Your task to perform on an android device: Open network settings Image 0: 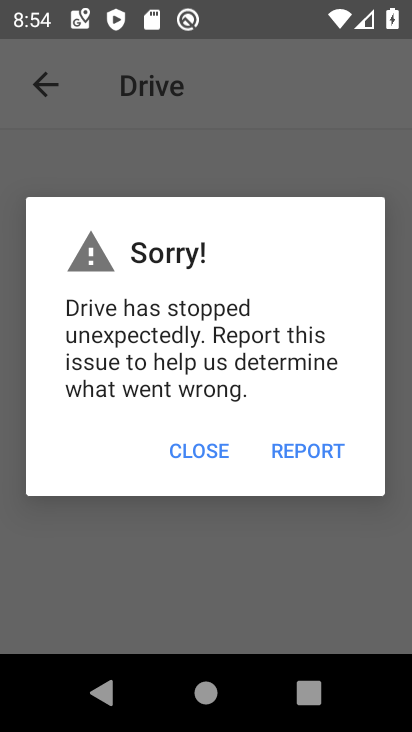
Step 0: press home button
Your task to perform on an android device: Open network settings Image 1: 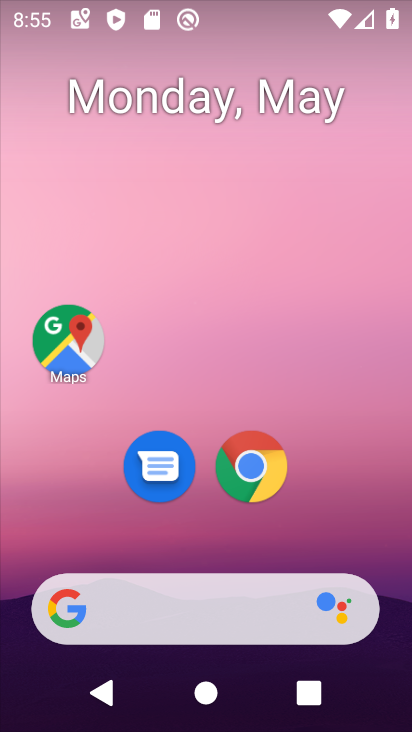
Step 1: drag from (218, 648) to (262, 219)
Your task to perform on an android device: Open network settings Image 2: 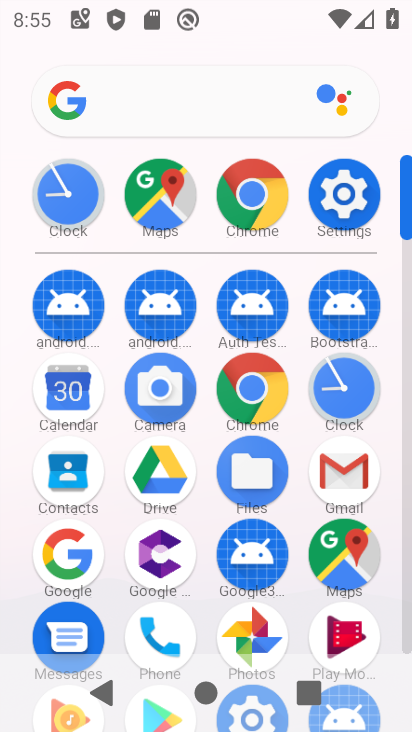
Step 2: click (330, 221)
Your task to perform on an android device: Open network settings Image 3: 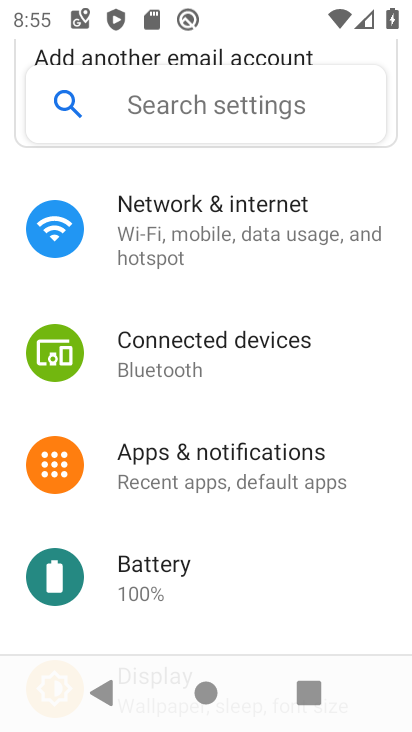
Step 3: click (175, 222)
Your task to perform on an android device: Open network settings Image 4: 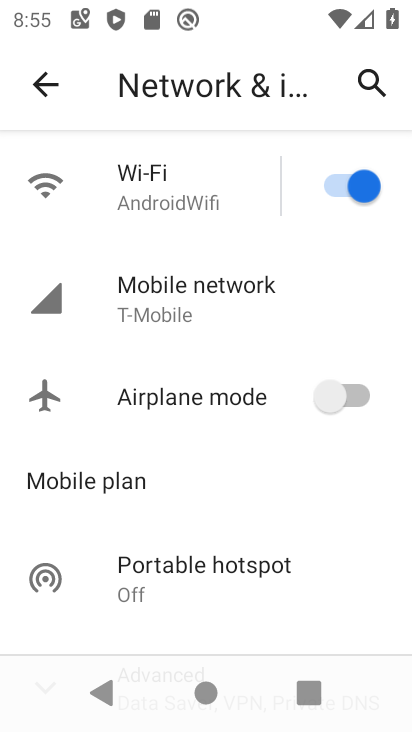
Step 4: task complete